Your task to perform on an android device: turn on the 24-hour format for clock Image 0: 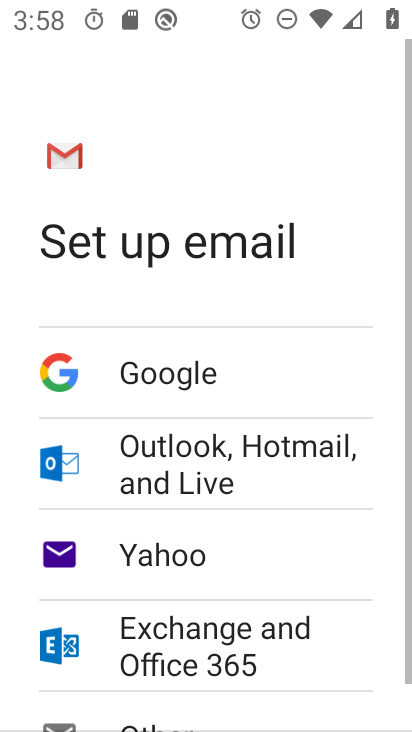
Step 0: press home button
Your task to perform on an android device: turn on the 24-hour format for clock Image 1: 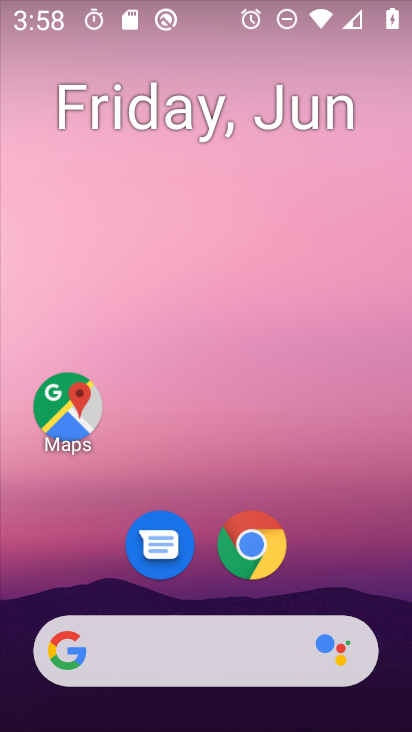
Step 1: drag from (308, 563) to (411, 76)
Your task to perform on an android device: turn on the 24-hour format for clock Image 2: 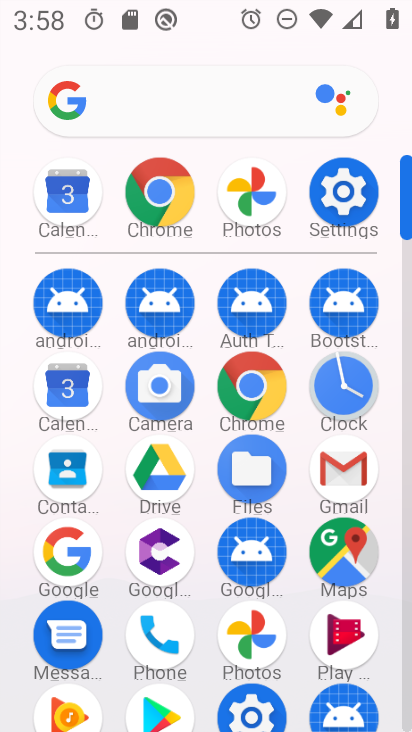
Step 2: click (327, 402)
Your task to perform on an android device: turn on the 24-hour format for clock Image 3: 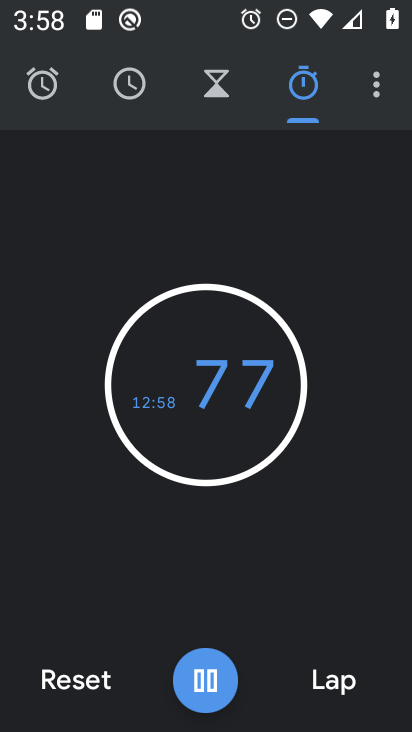
Step 3: click (383, 85)
Your task to perform on an android device: turn on the 24-hour format for clock Image 4: 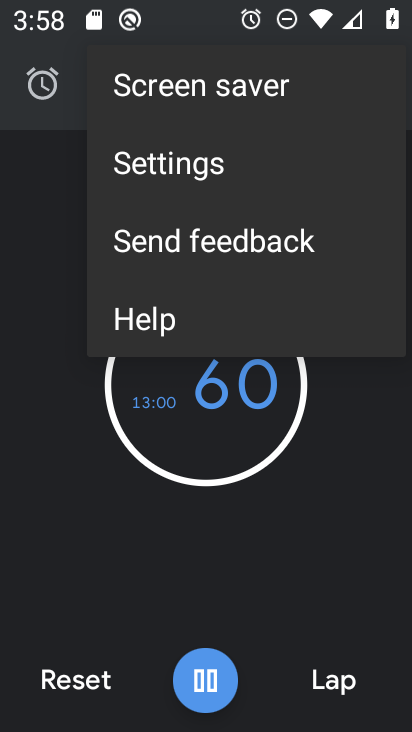
Step 4: click (204, 184)
Your task to perform on an android device: turn on the 24-hour format for clock Image 5: 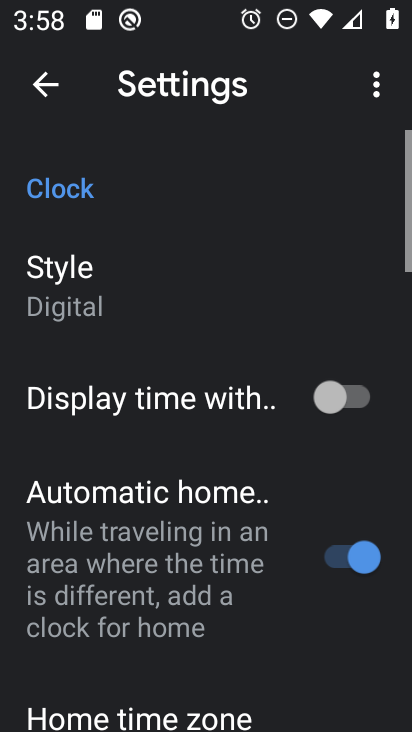
Step 5: click (102, 180)
Your task to perform on an android device: turn on the 24-hour format for clock Image 6: 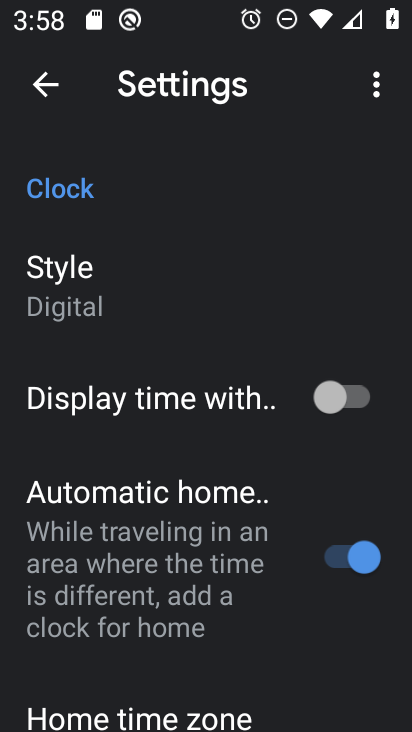
Step 6: drag from (148, 546) to (244, 174)
Your task to perform on an android device: turn on the 24-hour format for clock Image 7: 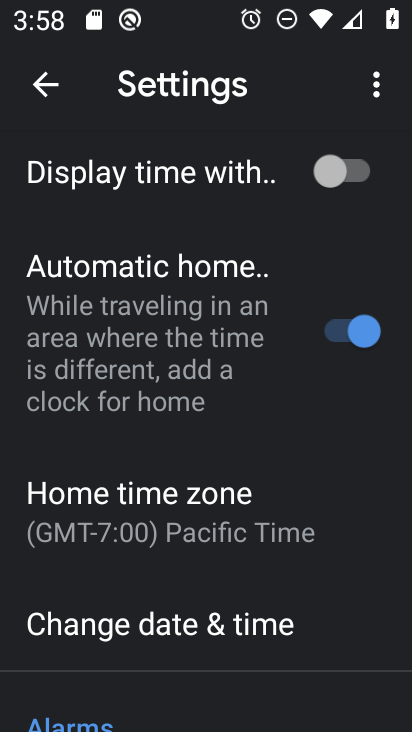
Step 7: click (213, 666)
Your task to perform on an android device: turn on the 24-hour format for clock Image 8: 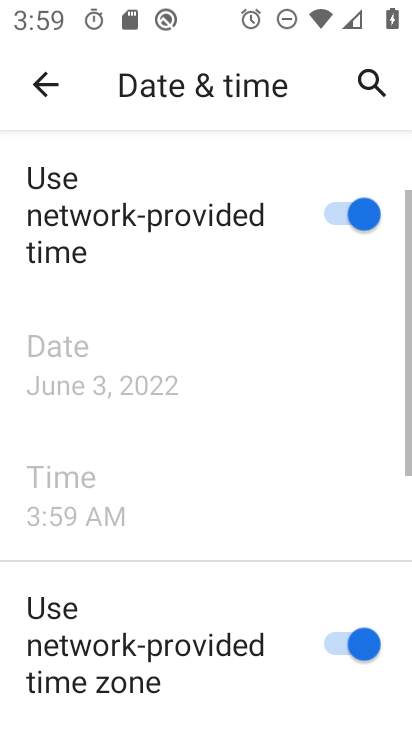
Step 8: drag from (301, 610) to (381, 86)
Your task to perform on an android device: turn on the 24-hour format for clock Image 9: 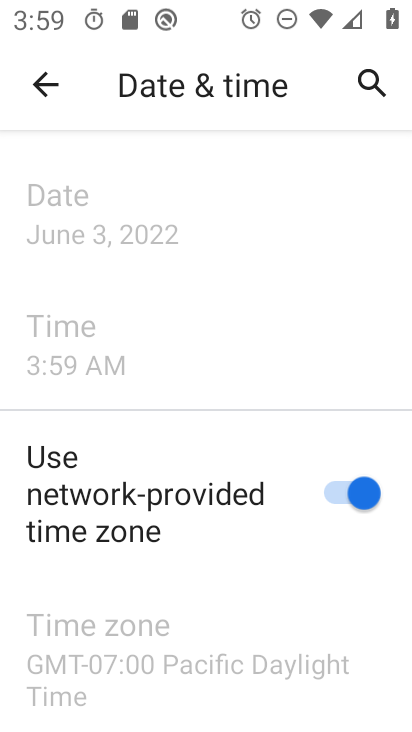
Step 9: drag from (354, 647) to (367, 108)
Your task to perform on an android device: turn on the 24-hour format for clock Image 10: 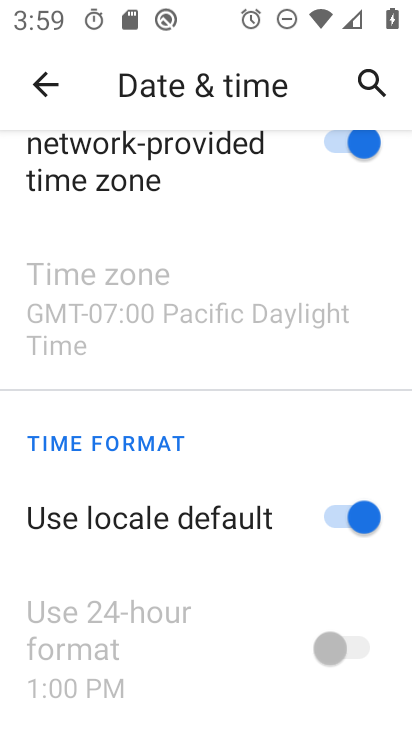
Step 10: click (325, 515)
Your task to perform on an android device: turn on the 24-hour format for clock Image 11: 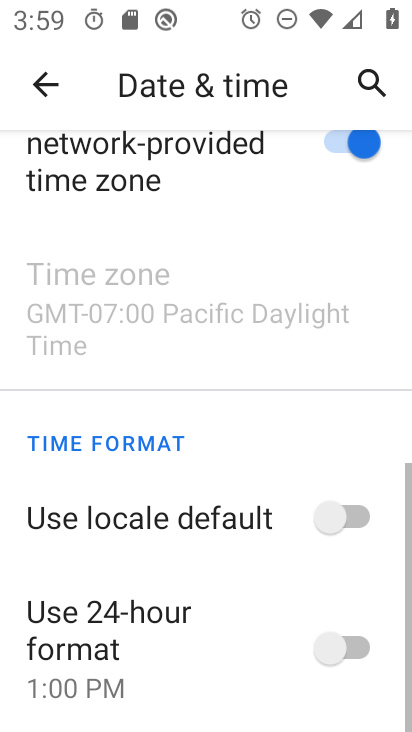
Step 11: click (352, 652)
Your task to perform on an android device: turn on the 24-hour format for clock Image 12: 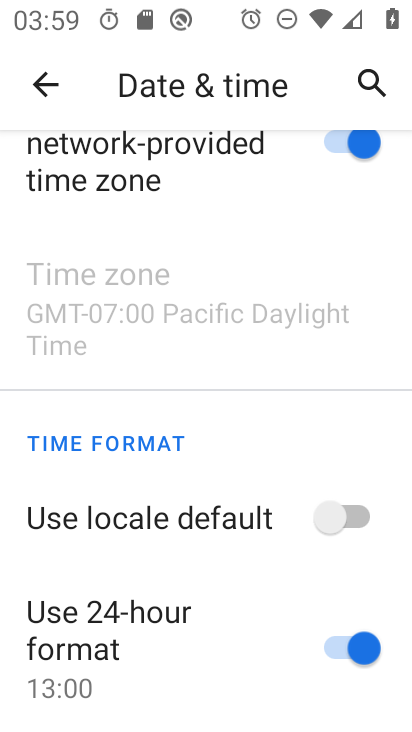
Step 12: task complete